Your task to perform on an android device: empty trash in the gmail app Image 0: 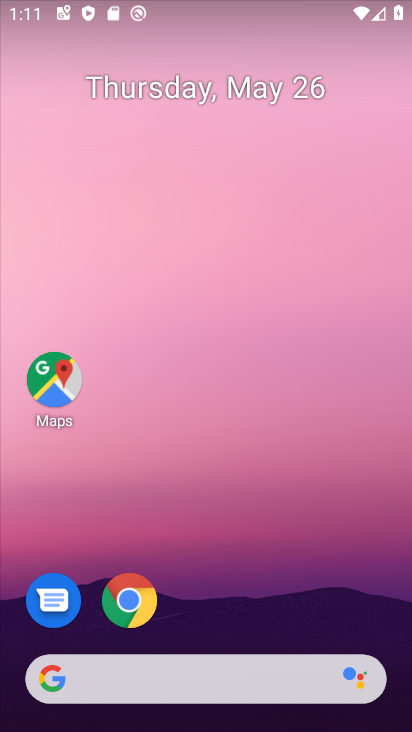
Step 0: drag from (275, 593) to (269, 213)
Your task to perform on an android device: empty trash in the gmail app Image 1: 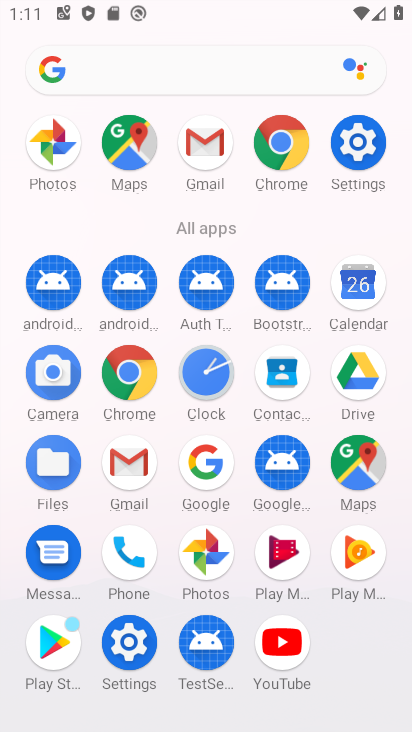
Step 1: click (195, 146)
Your task to perform on an android device: empty trash in the gmail app Image 2: 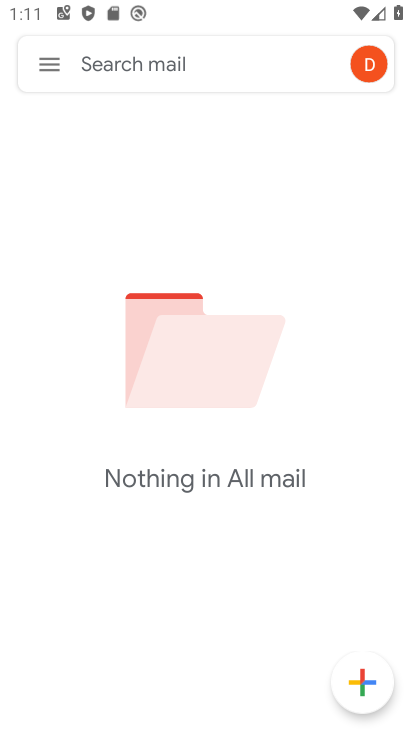
Step 2: click (44, 84)
Your task to perform on an android device: empty trash in the gmail app Image 3: 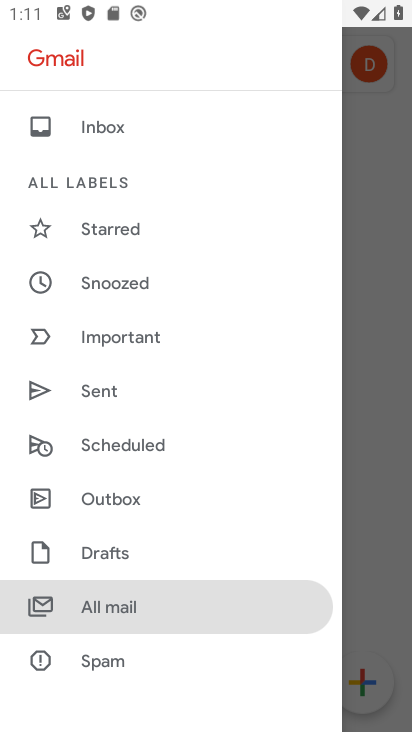
Step 3: drag from (196, 639) to (228, 234)
Your task to perform on an android device: empty trash in the gmail app Image 4: 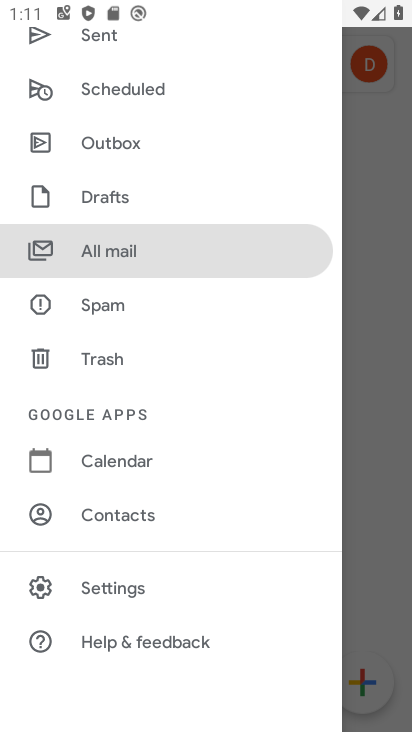
Step 4: click (134, 365)
Your task to perform on an android device: empty trash in the gmail app Image 5: 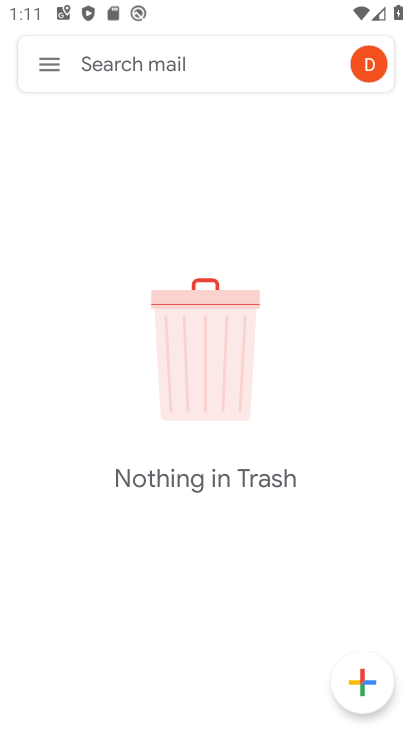
Step 5: task complete